Your task to perform on an android device: Open the web browser Image 0: 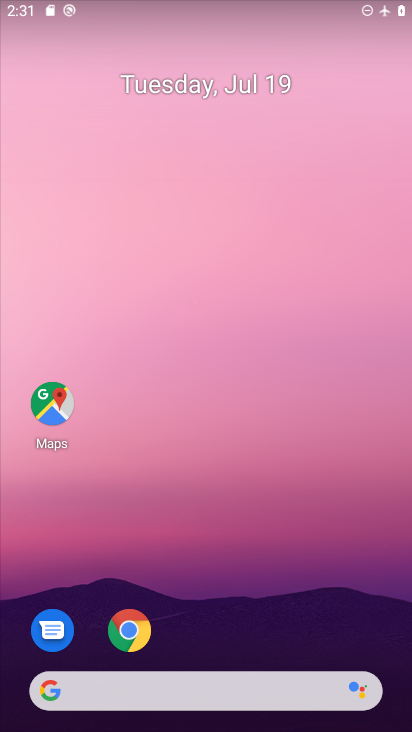
Step 0: click (130, 634)
Your task to perform on an android device: Open the web browser Image 1: 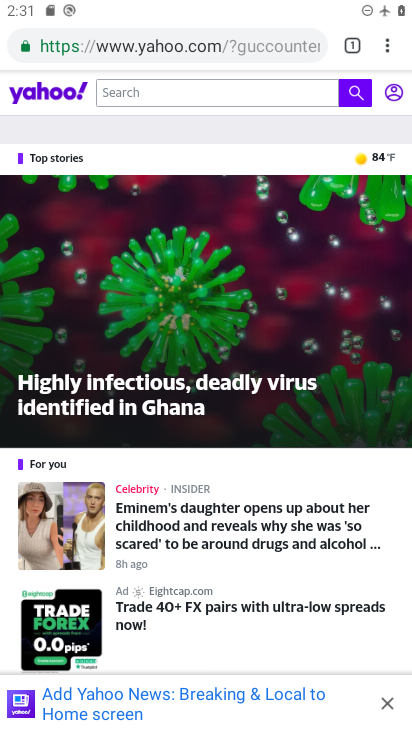
Step 1: task complete